Your task to perform on an android device: Go to eBay Image 0: 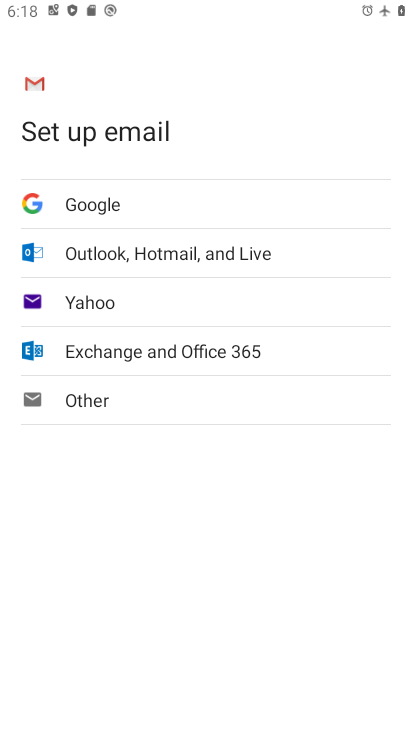
Step 0: press home button
Your task to perform on an android device: Go to eBay Image 1: 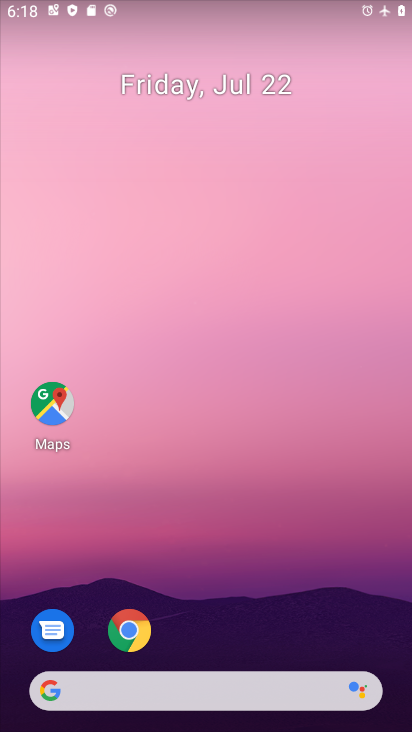
Step 1: drag from (244, 699) to (310, 55)
Your task to perform on an android device: Go to eBay Image 2: 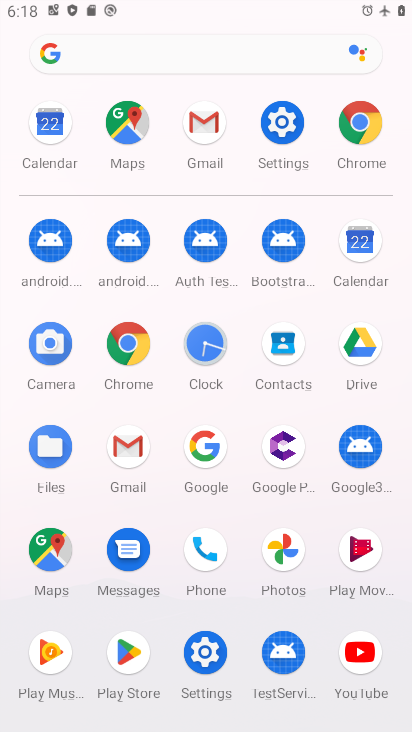
Step 2: click (143, 350)
Your task to perform on an android device: Go to eBay Image 3: 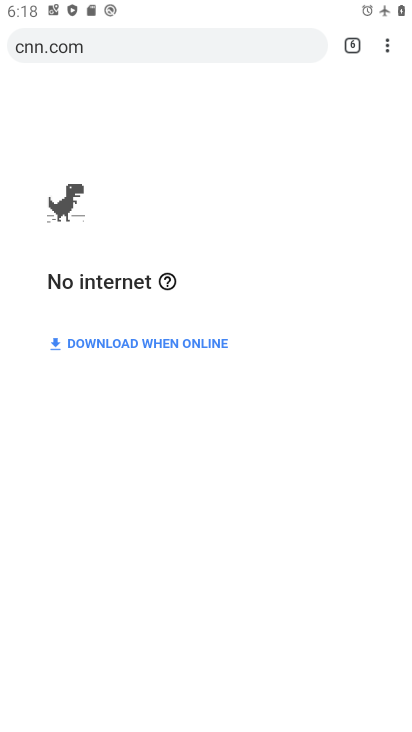
Step 3: drag from (285, 24) to (261, 592)
Your task to perform on an android device: Go to eBay Image 4: 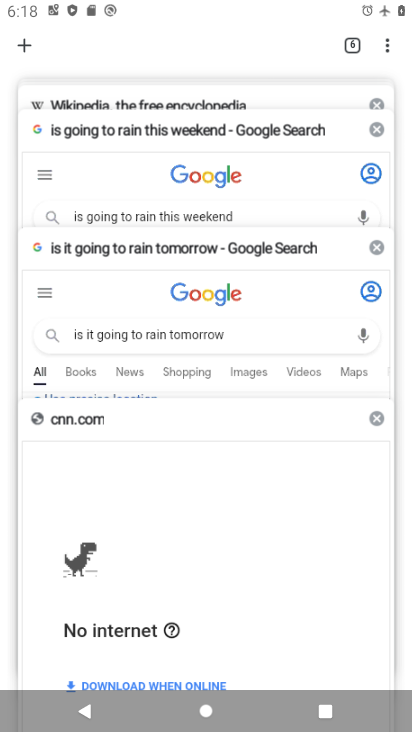
Step 4: drag from (279, 4) to (210, 542)
Your task to perform on an android device: Go to eBay Image 5: 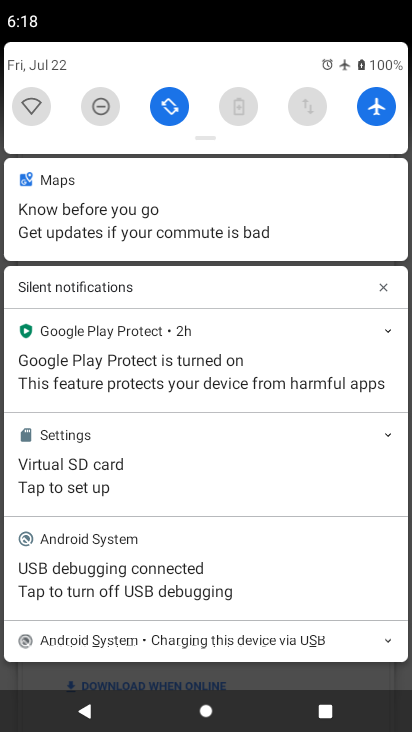
Step 5: drag from (285, 125) to (264, 641)
Your task to perform on an android device: Go to eBay Image 6: 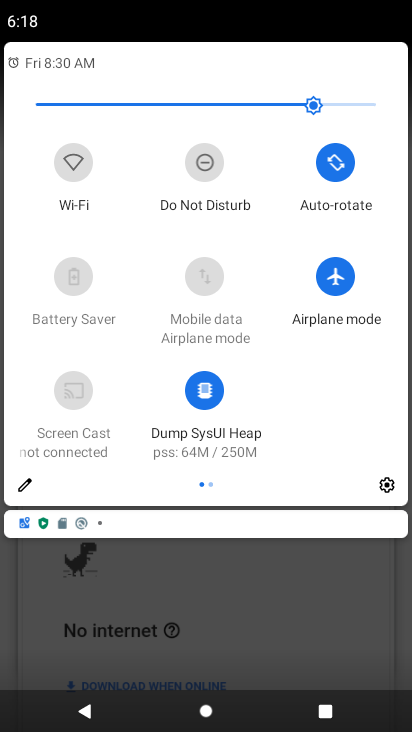
Step 6: click (322, 276)
Your task to perform on an android device: Go to eBay Image 7: 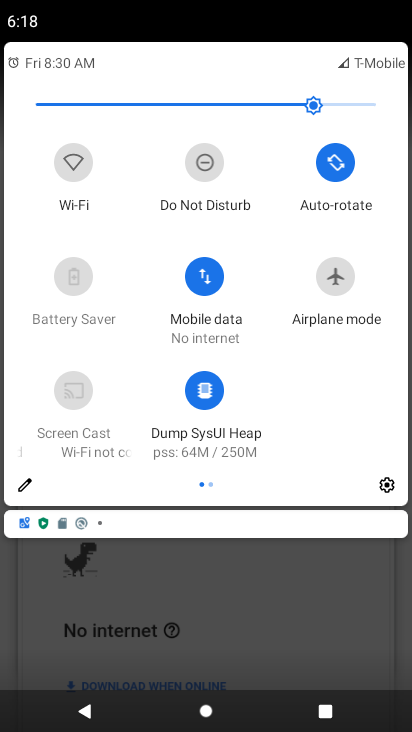
Step 7: task complete